Your task to perform on an android device: empty trash in google photos Image 0: 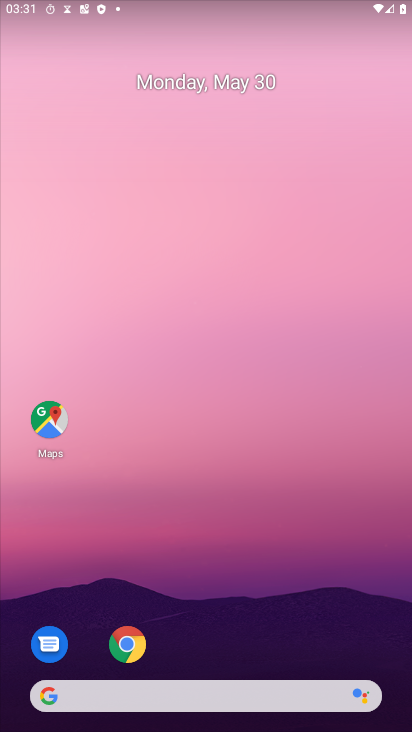
Step 0: press home button
Your task to perform on an android device: empty trash in google photos Image 1: 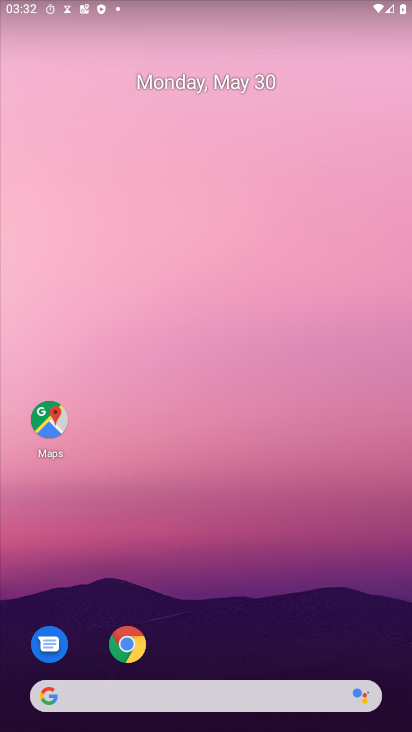
Step 1: drag from (197, 634) to (226, 170)
Your task to perform on an android device: empty trash in google photos Image 2: 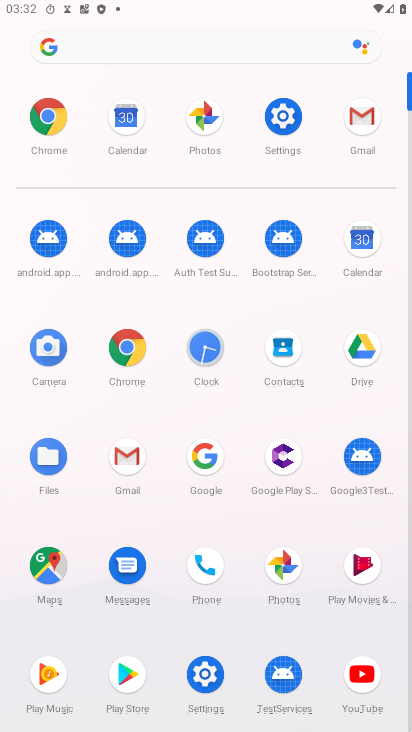
Step 2: click (281, 562)
Your task to perform on an android device: empty trash in google photos Image 3: 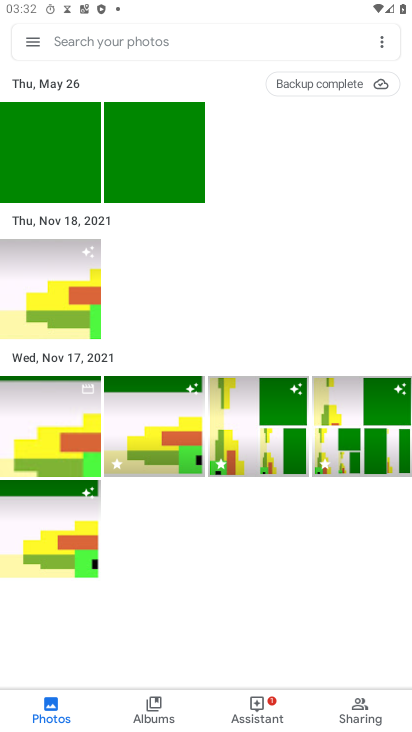
Step 3: click (33, 41)
Your task to perform on an android device: empty trash in google photos Image 4: 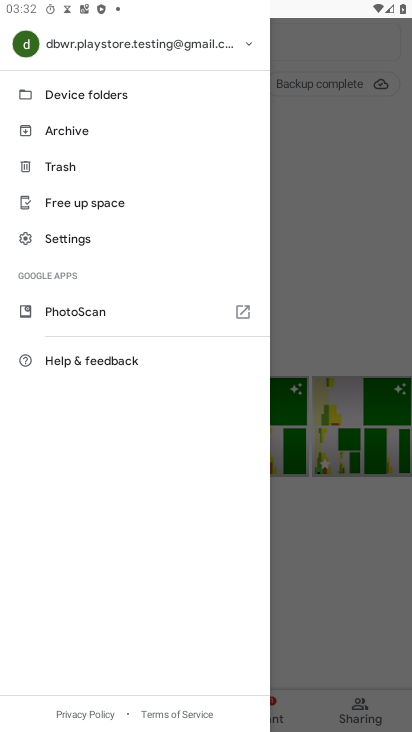
Step 4: click (57, 169)
Your task to perform on an android device: empty trash in google photos Image 5: 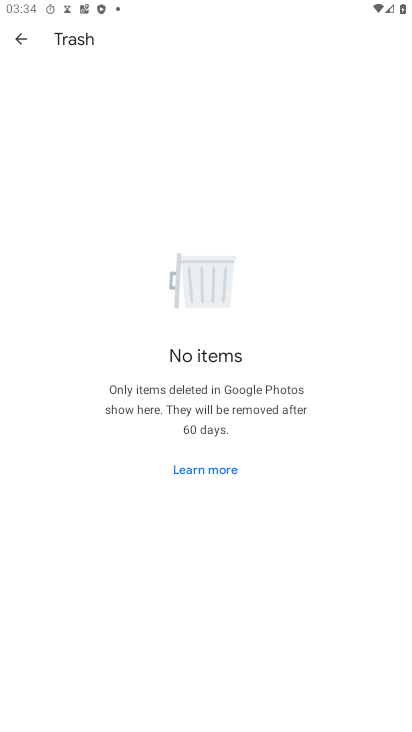
Step 5: task complete